Your task to perform on an android device: Open Wikipedia Image 0: 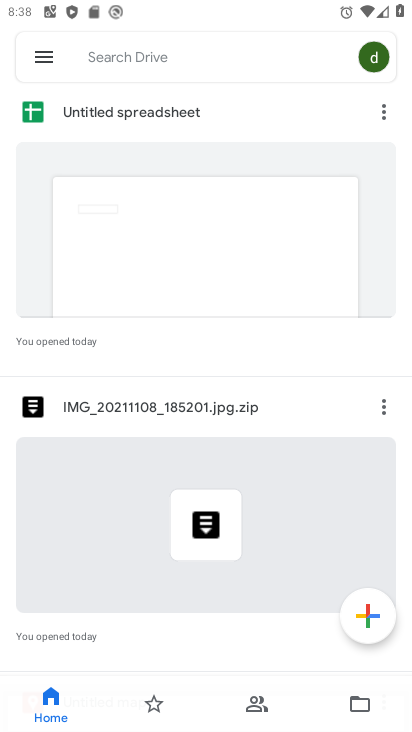
Step 0: press home button
Your task to perform on an android device: Open Wikipedia Image 1: 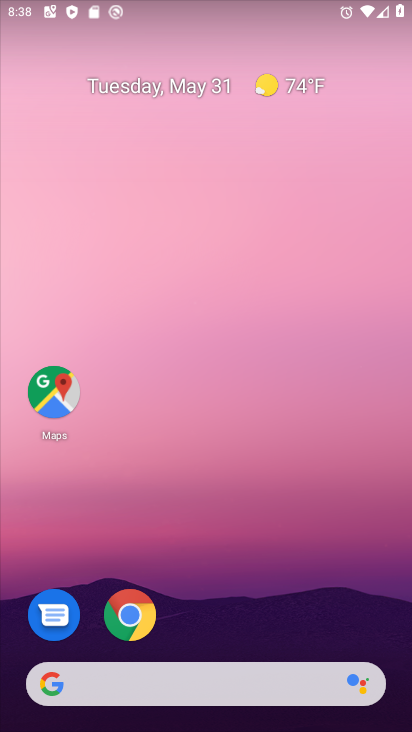
Step 1: click (133, 623)
Your task to perform on an android device: Open Wikipedia Image 2: 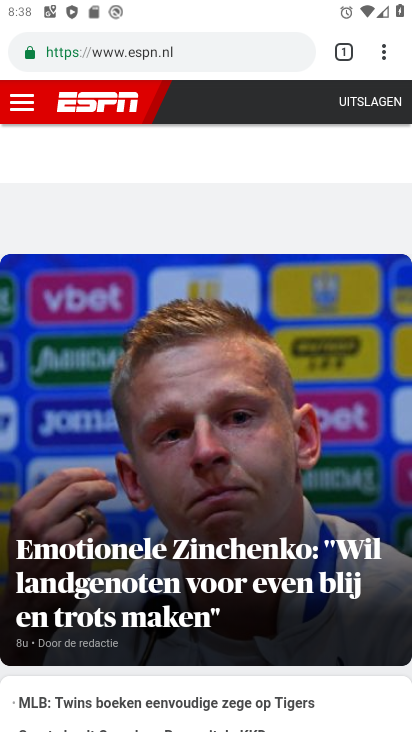
Step 2: click (336, 44)
Your task to perform on an android device: Open Wikipedia Image 3: 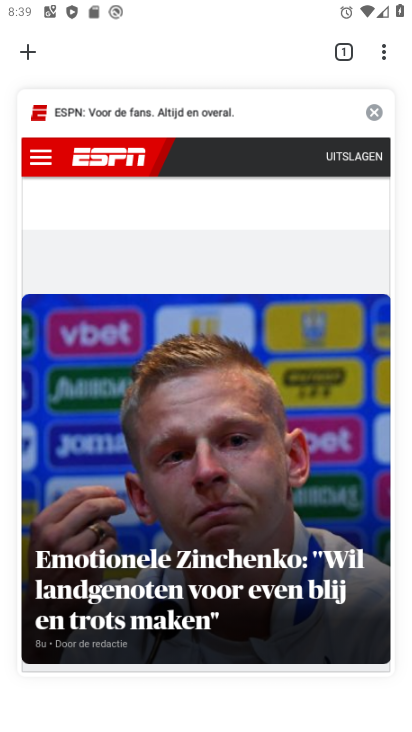
Step 3: click (32, 49)
Your task to perform on an android device: Open Wikipedia Image 4: 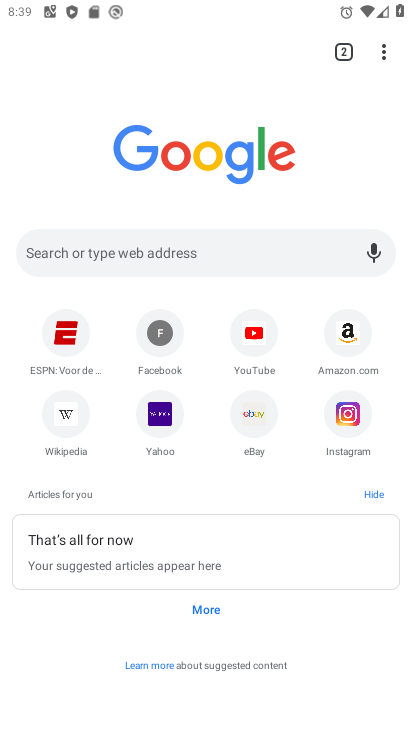
Step 4: click (83, 419)
Your task to perform on an android device: Open Wikipedia Image 5: 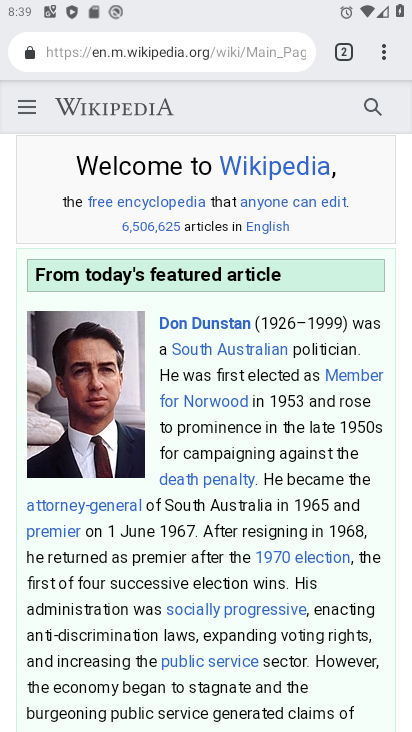
Step 5: task complete